Your task to perform on an android device: Show me the alarms in the clock app Image 0: 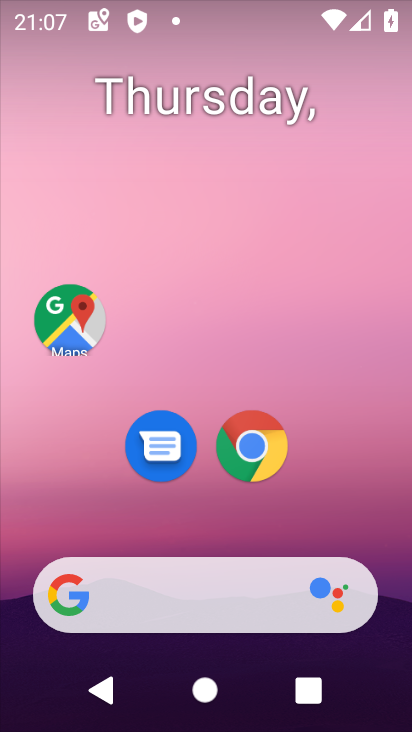
Step 0: press home button
Your task to perform on an android device: Show me the alarms in the clock app Image 1: 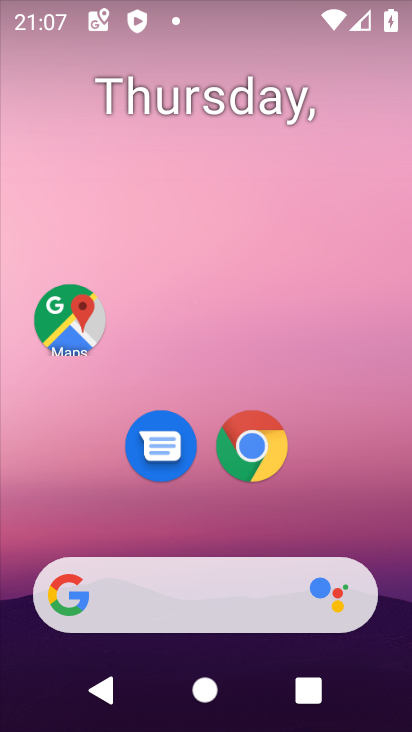
Step 1: drag from (387, 691) to (353, 301)
Your task to perform on an android device: Show me the alarms in the clock app Image 2: 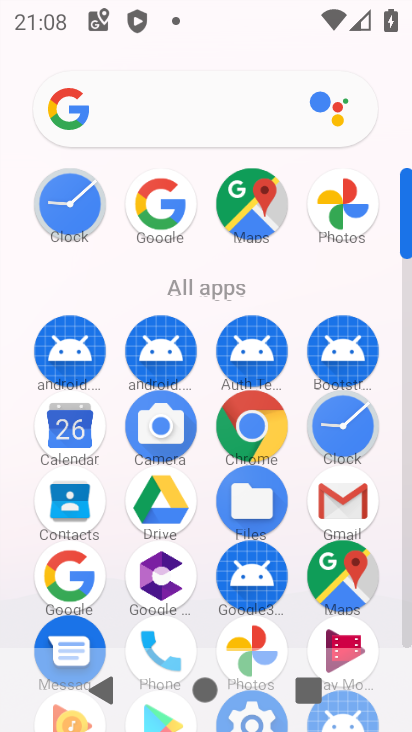
Step 2: click (403, 640)
Your task to perform on an android device: Show me the alarms in the clock app Image 3: 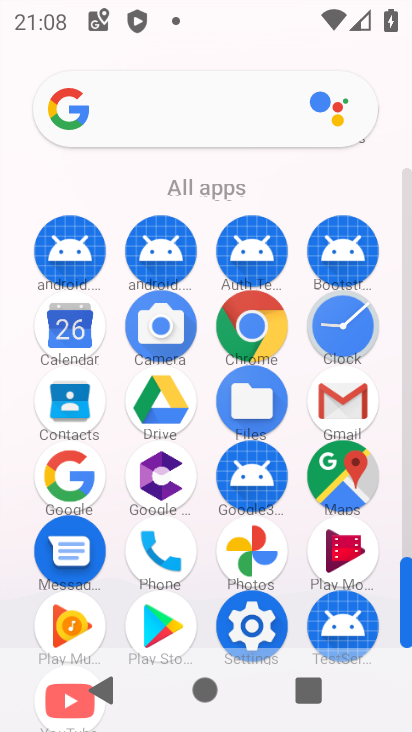
Step 3: click (321, 323)
Your task to perform on an android device: Show me the alarms in the clock app Image 4: 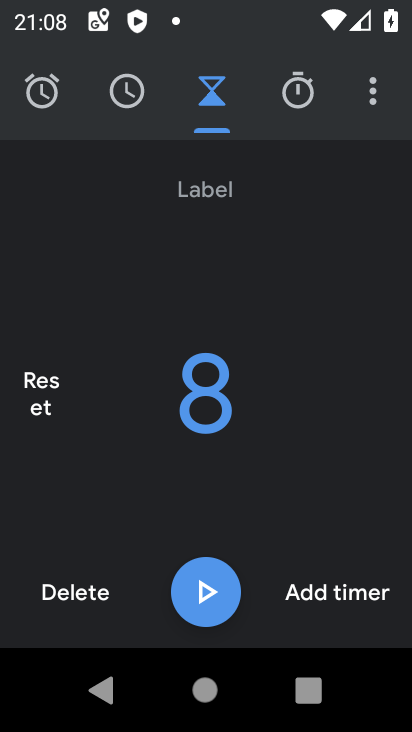
Step 4: click (43, 84)
Your task to perform on an android device: Show me the alarms in the clock app Image 5: 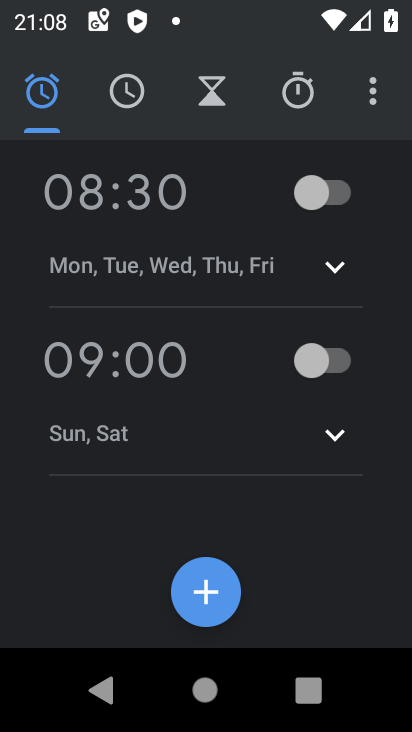
Step 5: task complete